Your task to perform on an android device: Search for pizza restaurants on Maps Image 0: 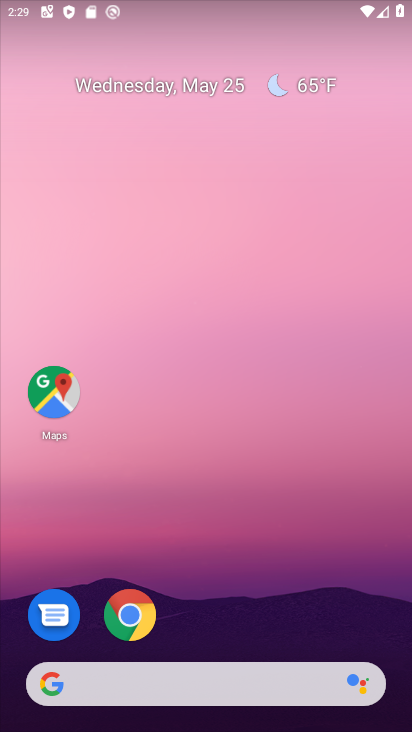
Step 0: drag from (390, 711) to (345, 169)
Your task to perform on an android device: Search for pizza restaurants on Maps Image 1: 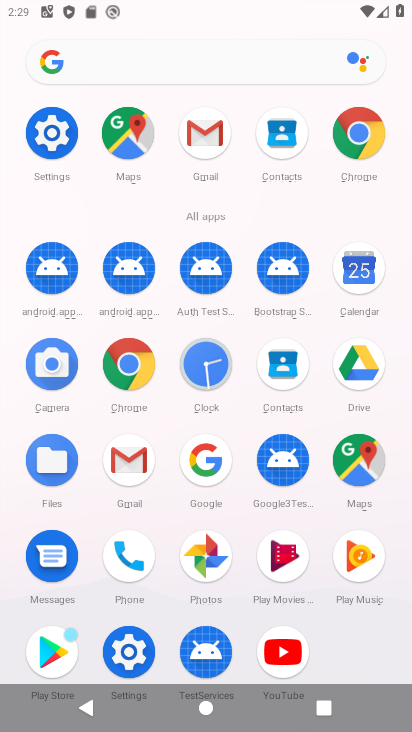
Step 1: click (339, 464)
Your task to perform on an android device: Search for pizza restaurants on Maps Image 2: 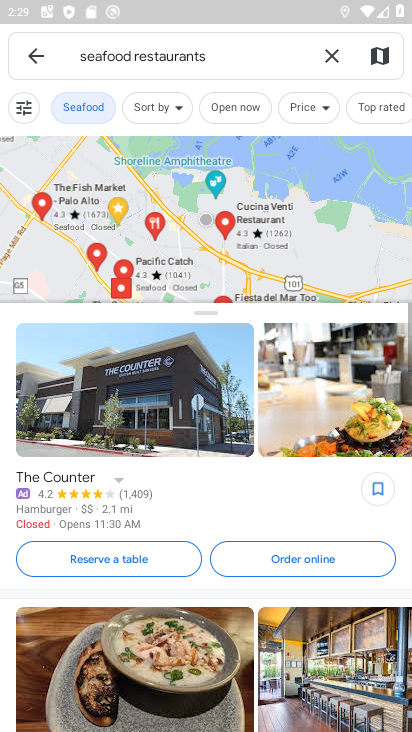
Step 2: click (198, 56)
Your task to perform on an android device: Search for pizza restaurants on Maps Image 3: 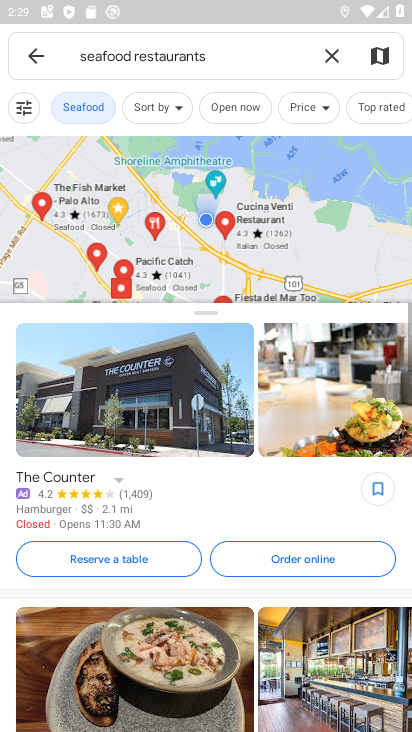
Step 3: click (327, 50)
Your task to perform on an android device: Search for pizza restaurants on Maps Image 4: 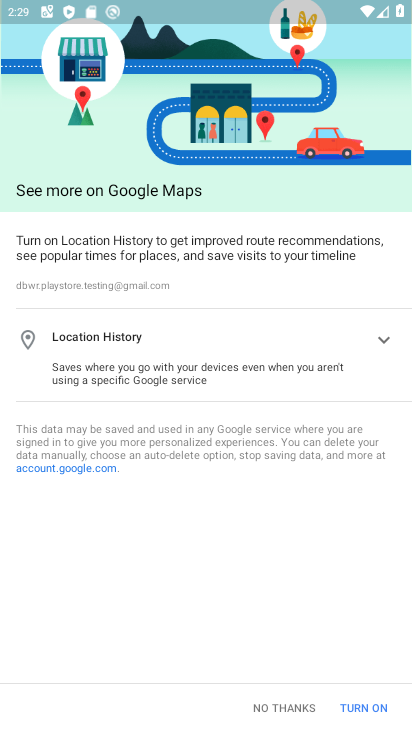
Step 4: press back button
Your task to perform on an android device: Search for pizza restaurants on Maps Image 5: 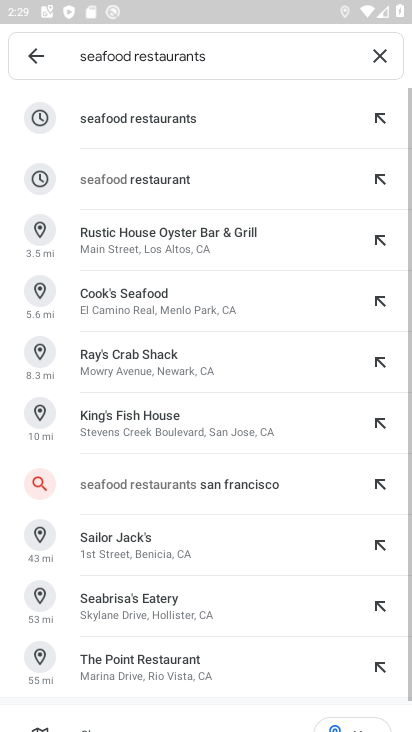
Step 5: click (380, 52)
Your task to perform on an android device: Search for pizza restaurants on Maps Image 6: 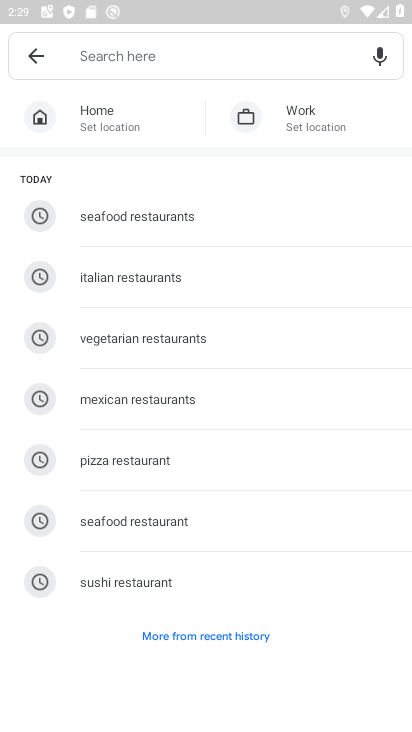
Step 6: click (89, 54)
Your task to perform on an android device: Search for pizza restaurants on Maps Image 7: 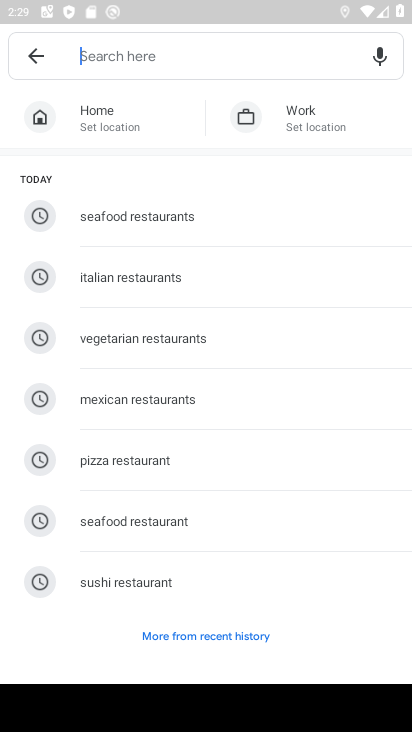
Step 7: type "pizza restaurants"
Your task to perform on an android device: Search for pizza restaurants on Maps Image 8: 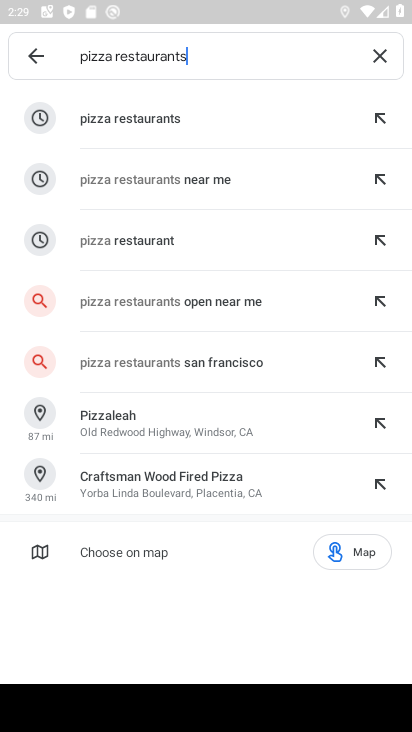
Step 8: click (99, 298)
Your task to perform on an android device: Search for pizza restaurants on Maps Image 9: 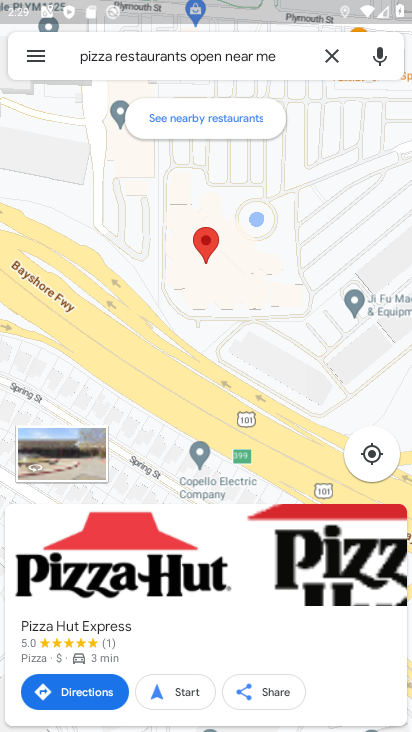
Step 9: task complete